Your task to perform on an android device: Open Wikipedia Image 0: 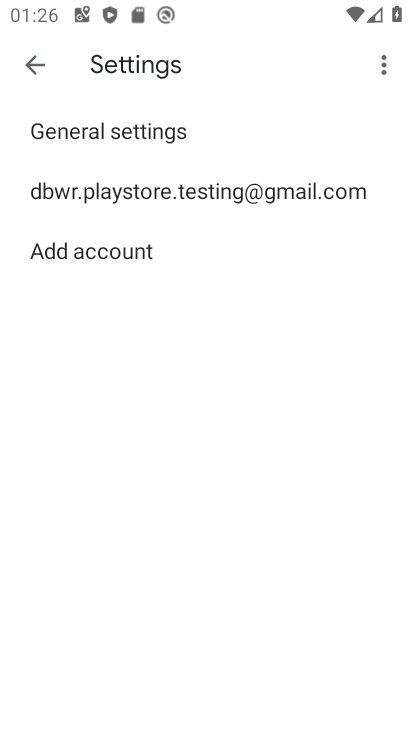
Step 0: press home button
Your task to perform on an android device: Open Wikipedia Image 1: 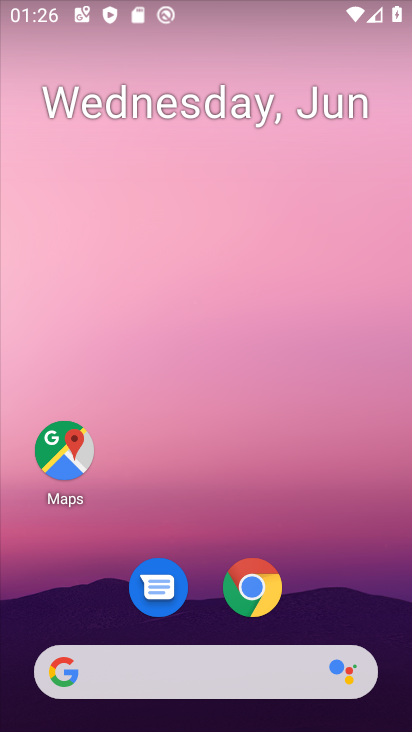
Step 1: click (261, 581)
Your task to perform on an android device: Open Wikipedia Image 2: 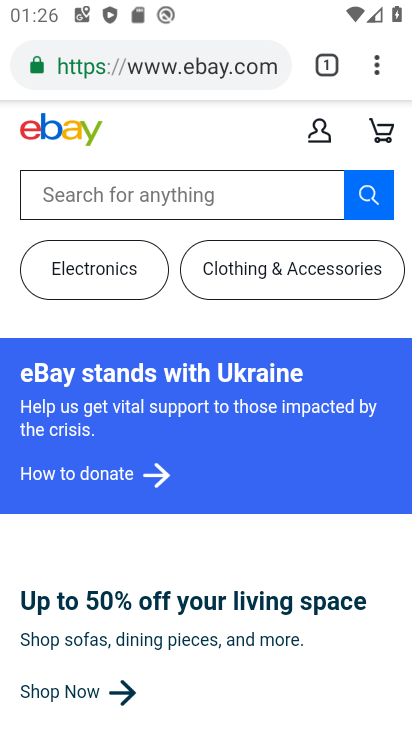
Step 2: click (209, 76)
Your task to perform on an android device: Open Wikipedia Image 3: 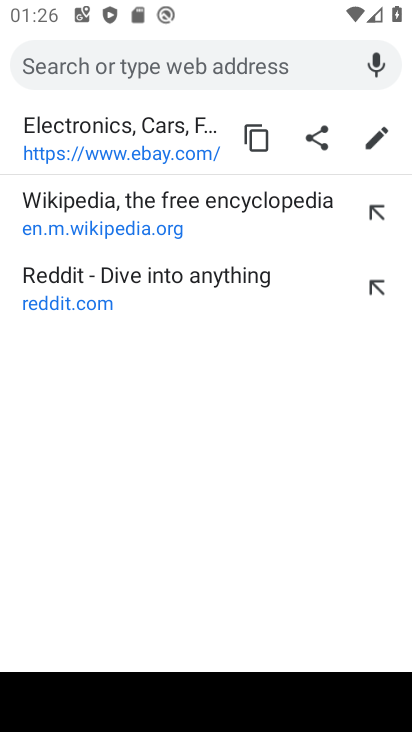
Step 3: click (147, 231)
Your task to perform on an android device: Open Wikipedia Image 4: 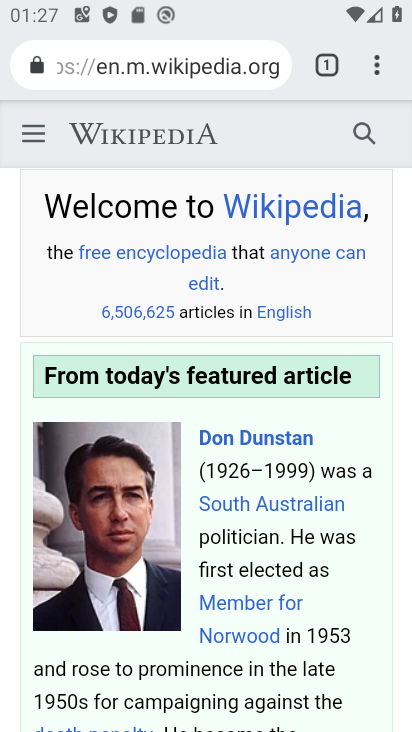
Step 4: task complete